Your task to perform on an android device: Go to settings Image 0: 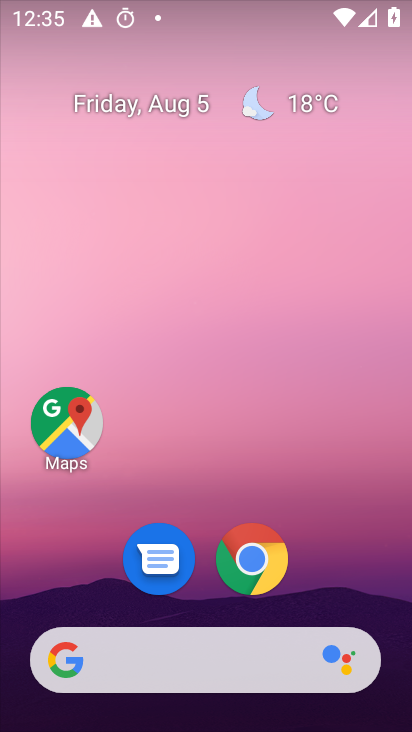
Step 0: drag from (46, 686) to (251, 266)
Your task to perform on an android device: Go to settings Image 1: 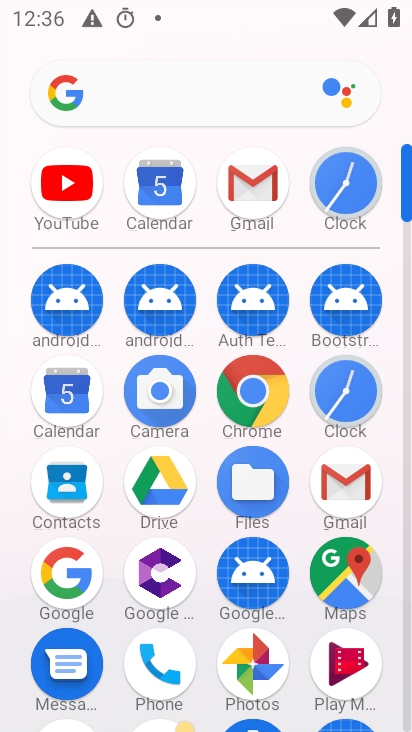
Step 1: drag from (119, 375) to (153, 90)
Your task to perform on an android device: Go to settings Image 2: 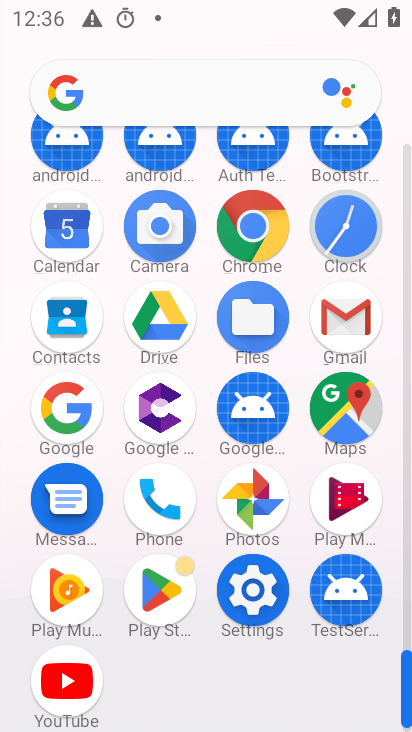
Step 2: click (252, 608)
Your task to perform on an android device: Go to settings Image 3: 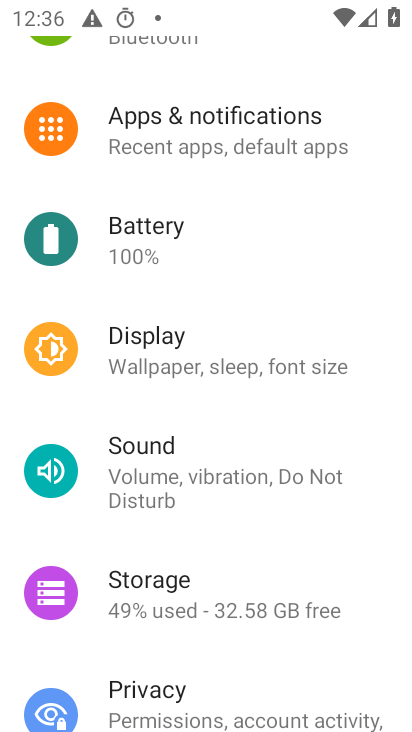
Step 3: task complete